Your task to perform on an android device: What's the news in Bolivia? Image 0: 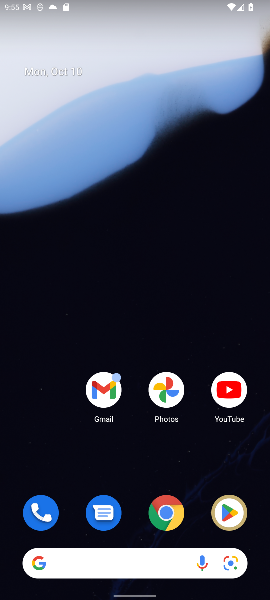
Step 0: click (123, 565)
Your task to perform on an android device: What's the news in Bolivia? Image 1: 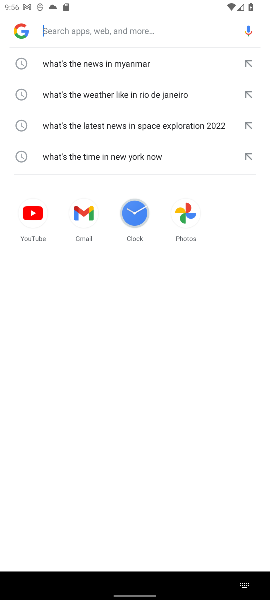
Step 1: type "What's the news in Bolivia?"
Your task to perform on an android device: What's the news in Bolivia? Image 2: 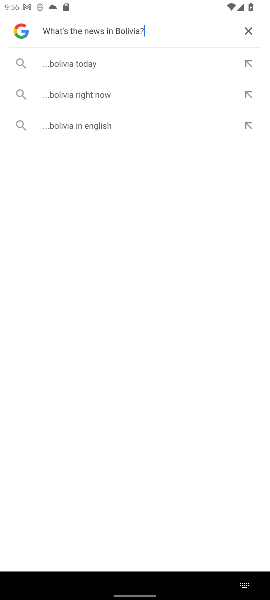
Step 2: click (73, 66)
Your task to perform on an android device: What's the news in Bolivia? Image 3: 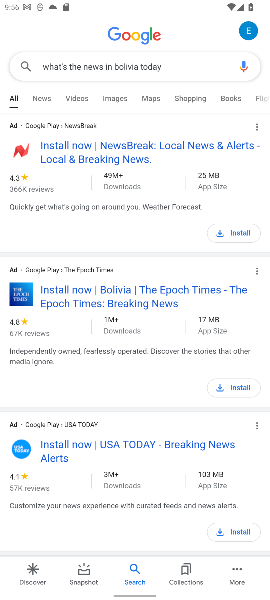
Step 3: task complete